Your task to perform on an android device: change the clock display to analog Image 0: 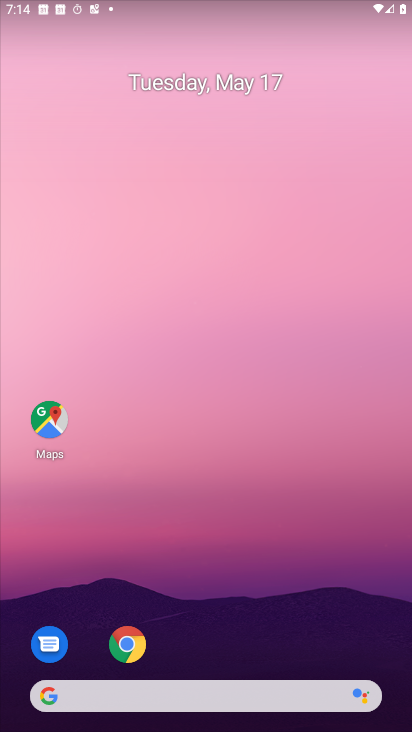
Step 0: drag from (345, 644) to (310, 41)
Your task to perform on an android device: change the clock display to analog Image 1: 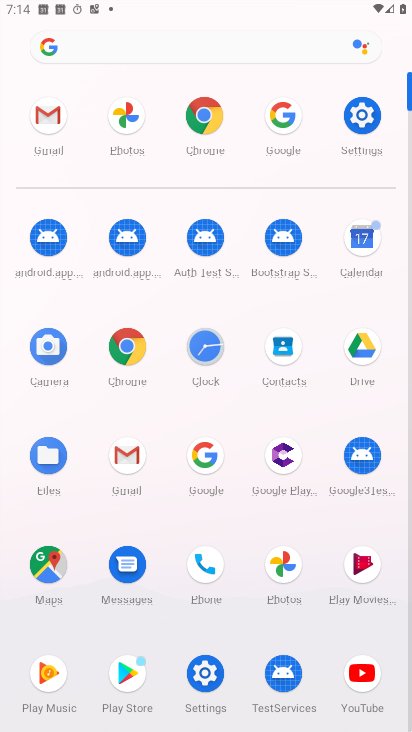
Step 1: click (197, 346)
Your task to perform on an android device: change the clock display to analog Image 2: 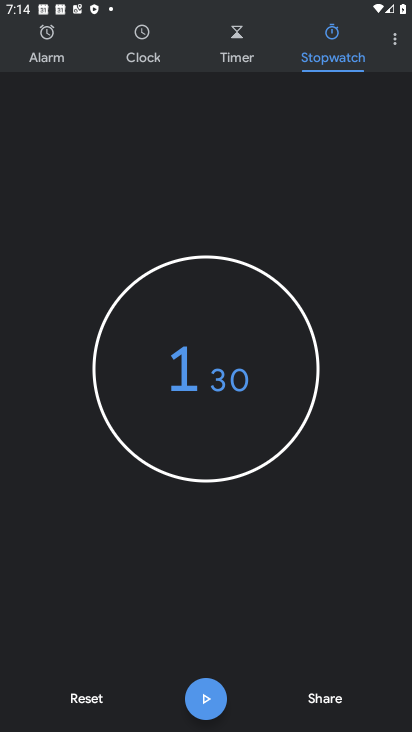
Step 2: click (400, 37)
Your task to perform on an android device: change the clock display to analog Image 3: 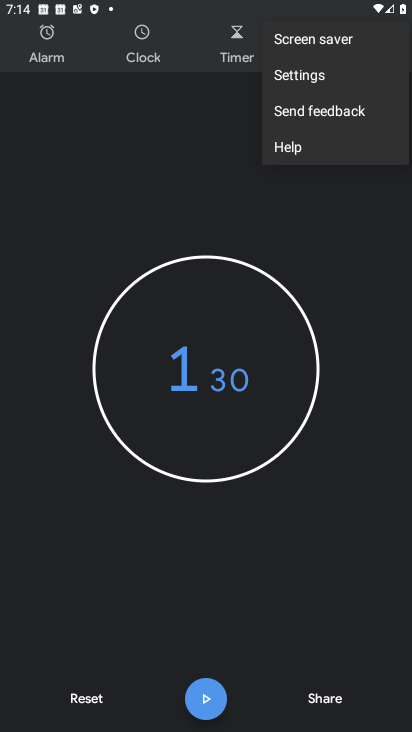
Step 3: click (343, 76)
Your task to perform on an android device: change the clock display to analog Image 4: 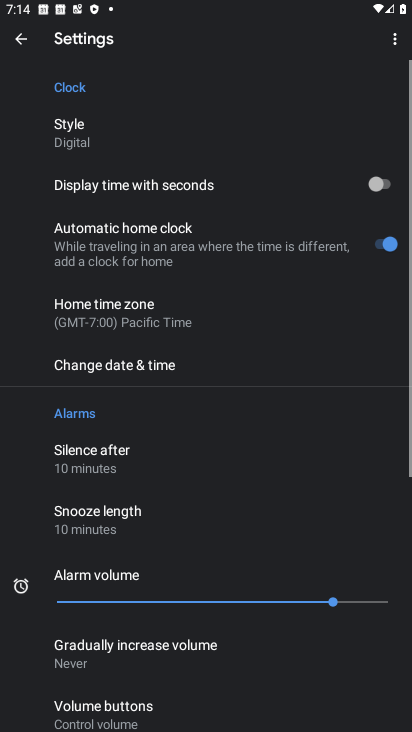
Step 4: click (114, 112)
Your task to perform on an android device: change the clock display to analog Image 5: 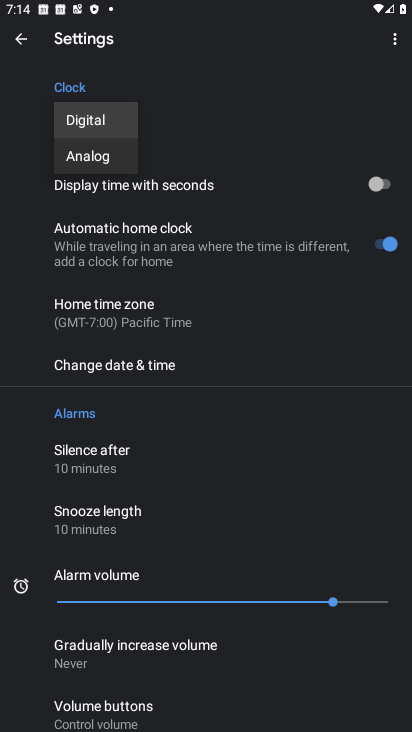
Step 5: click (120, 146)
Your task to perform on an android device: change the clock display to analog Image 6: 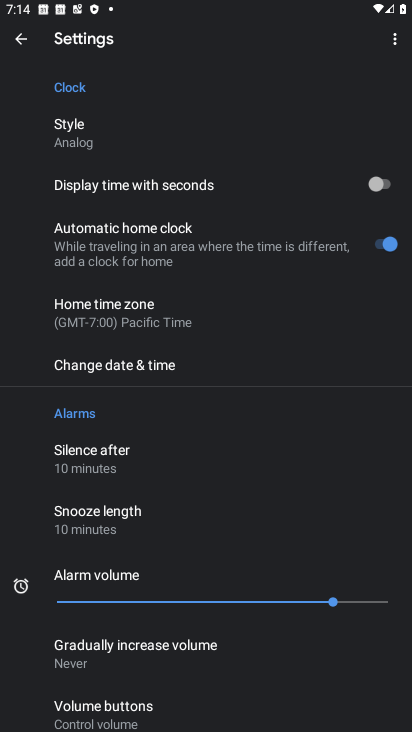
Step 6: task complete